Your task to perform on an android device: Go to notification settings Image 0: 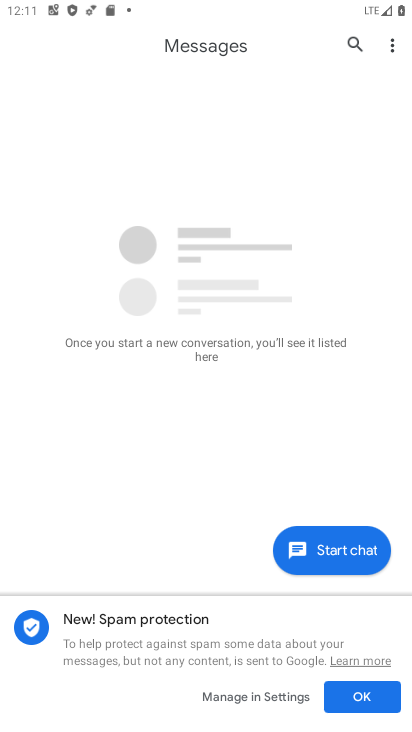
Step 0: press home button
Your task to perform on an android device: Go to notification settings Image 1: 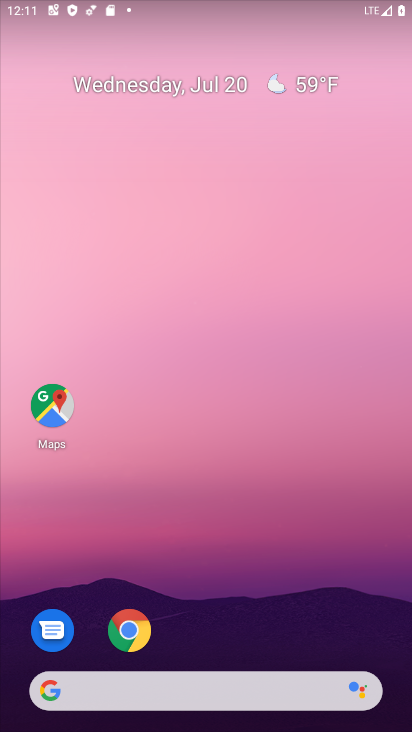
Step 1: drag from (263, 668) to (313, 265)
Your task to perform on an android device: Go to notification settings Image 2: 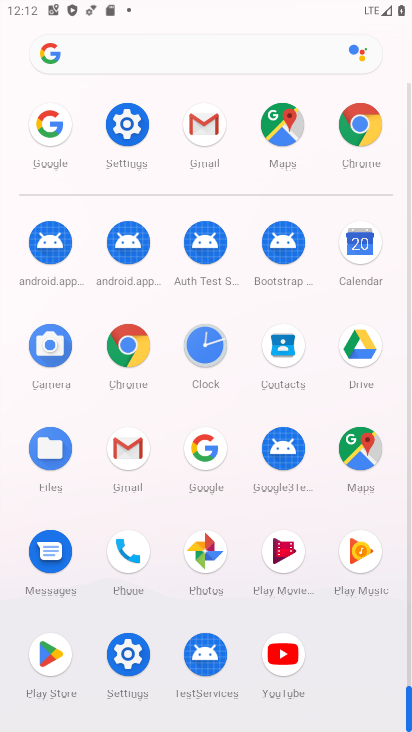
Step 2: click (129, 136)
Your task to perform on an android device: Go to notification settings Image 3: 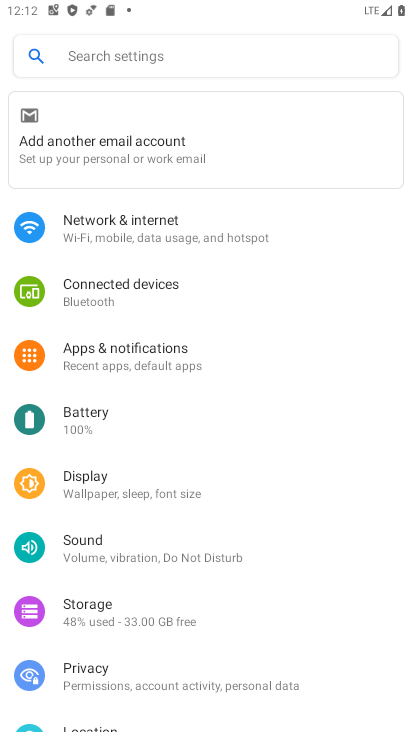
Step 3: click (157, 354)
Your task to perform on an android device: Go to notification settings Image 4: 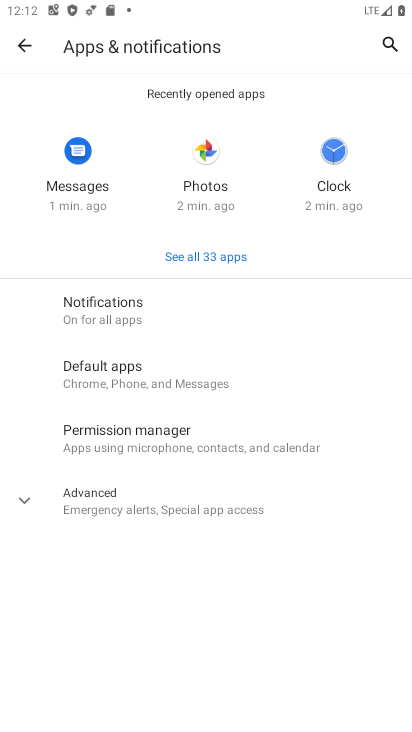
Step 4: click (200, 316)
Your task to perform on an android device: Go to notification settings Image 5: 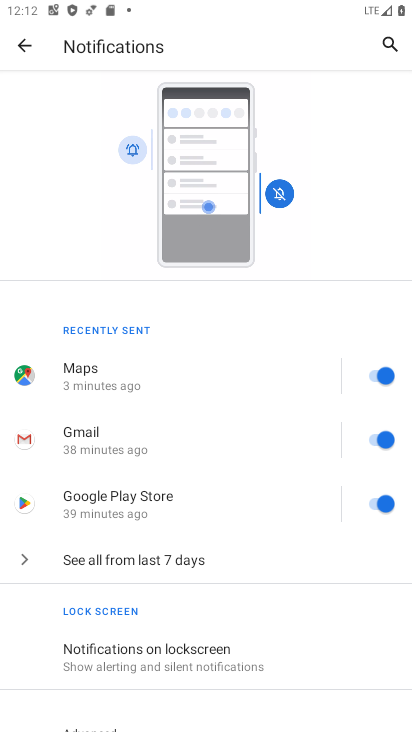
Step 5: task complete